Your task to perform on an android device: check the backup settings in the google photos Image 0: 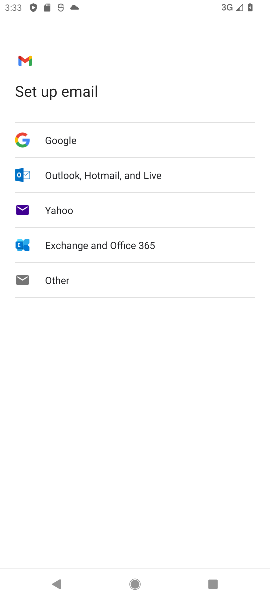
Step 0: press home button
Your task to perform on an android device: check the backup settings in the google photos Image 1: 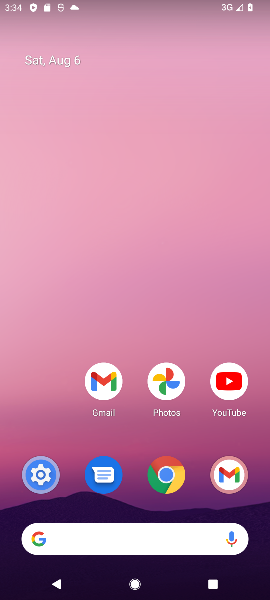
Step 1: click (162, 391)
Your task to perform on an android device: check the backup settings in the google photos Image 2: 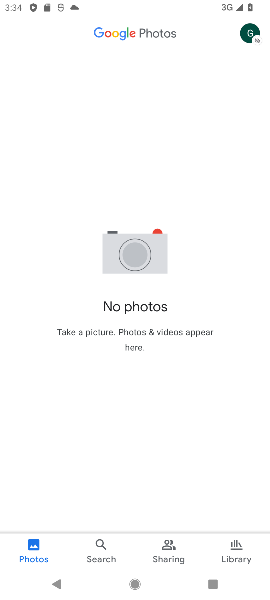
Step 2: click (122, 34)
Your task to perform on an android device: check the backup settings in the google photos Image 3: 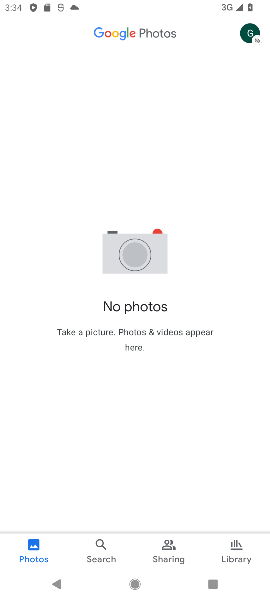
Step 3: click (249, 30)
Your task to perform on an android device: check the backup settings in the google photos Image 4: 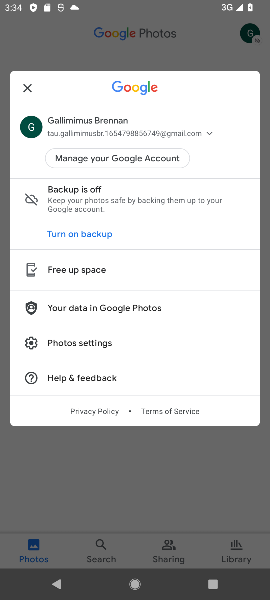
Step 4: click (160, 195)
Your task to perform on an android device: check the backup settings in the google photos Image 5: 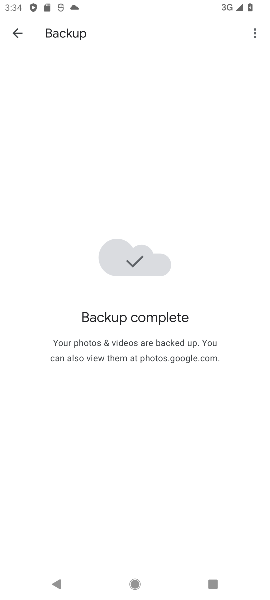
Step 5: task complete